Your task to perform on an android device: Open my contact list Image 0: 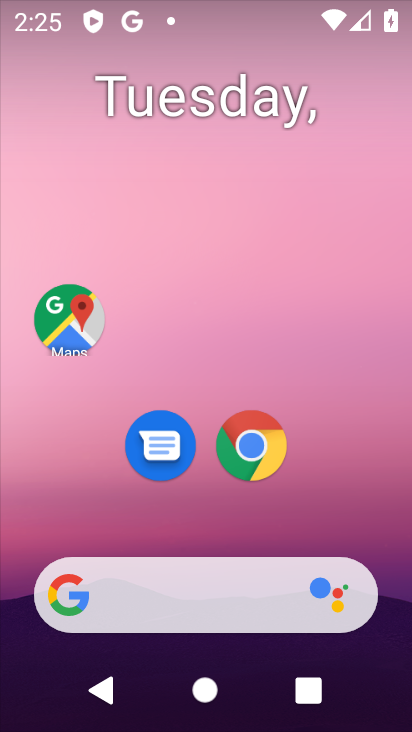
Step 0: drag from (234, 696) to (256, 15)
Your task to perform on an android device: Open my contact list Image 1: 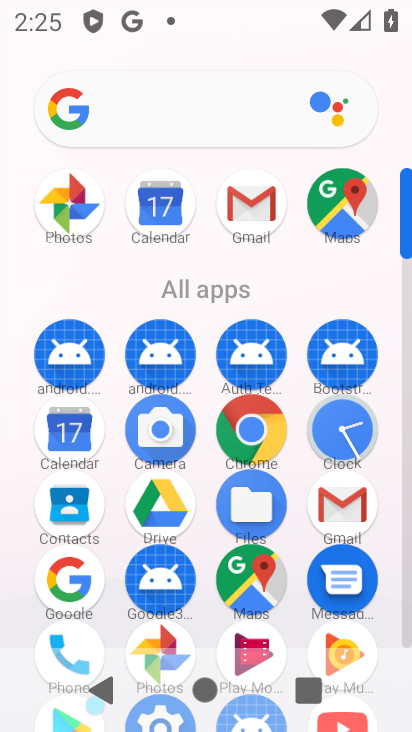
Step 1: click (64, 507)
Your task to perform on an android device: Open my contact list Image 2: 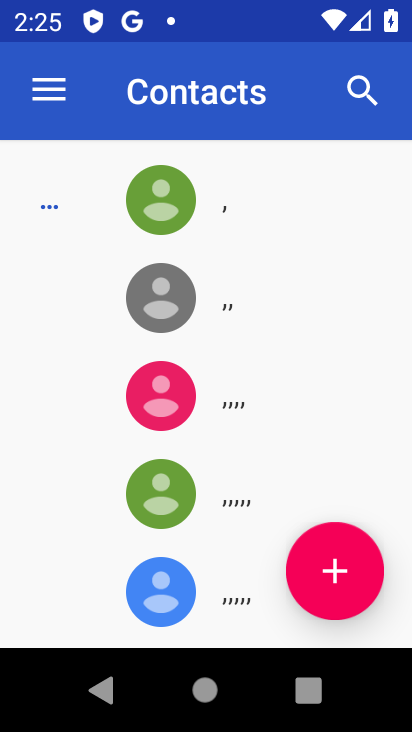
Step 2: task complete